Your task to perform on an android device: Play the last video I watched on Youtube Image 0: 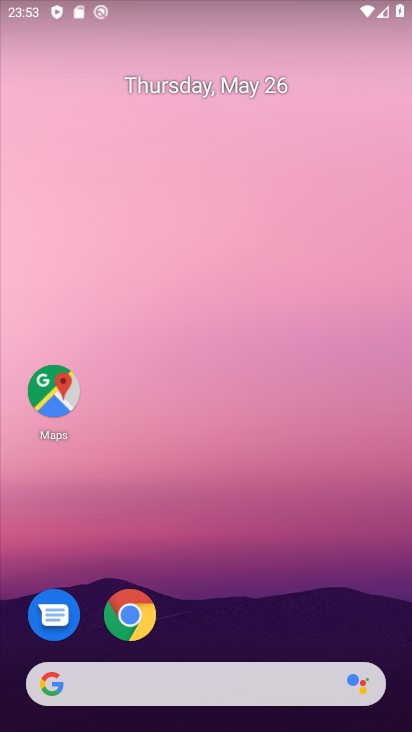
Step 0: drag from (267, 639) to (288, 152)
Your task to perform on an android device: Play the last video I watched on Youtube Image 1: 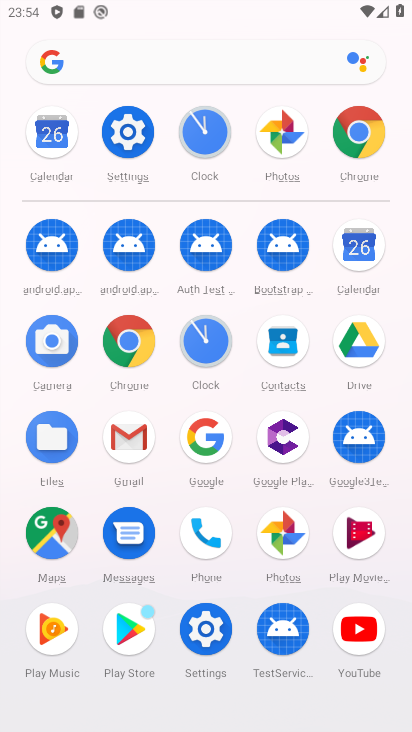
Step 1: click (386, 631)
Your task to perform on an android device: Play the last video I watched on Youtube Image 2: 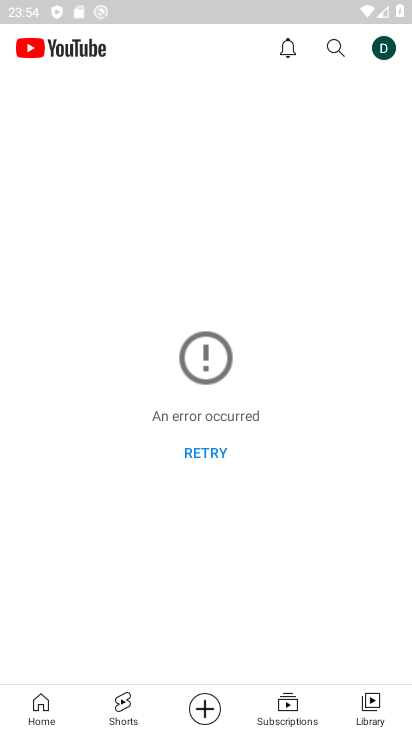
Step 2: task complete